Your task to perform on an android device: Go to internet settings Image 0: 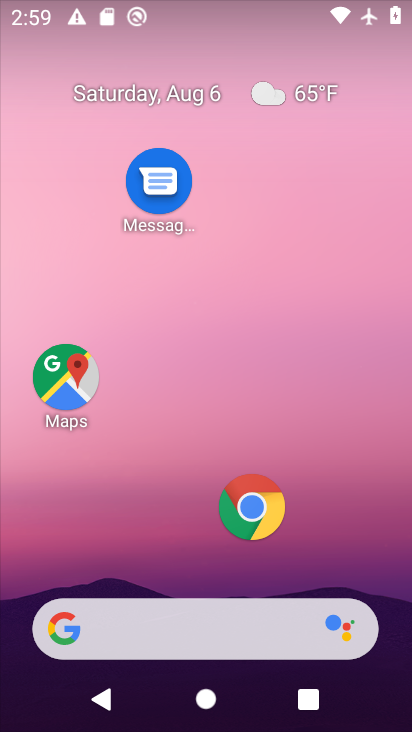
Step 0: drag from (170, 568) to (259, 25)
Your task to perform on an android device: Go to internet settings Image 1: 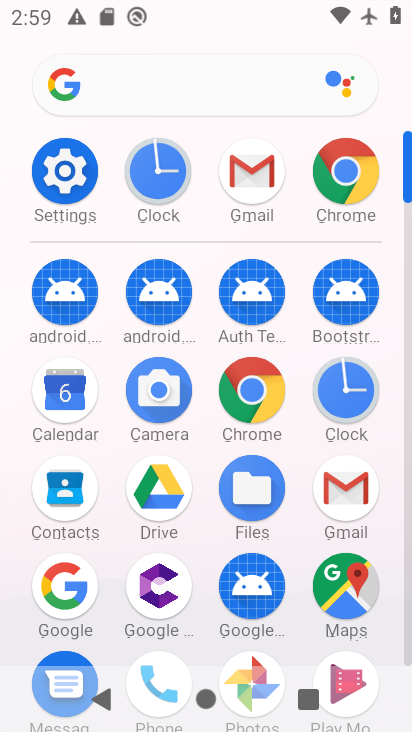
Step 1: click (66, 182)
Your task to perform on an android device: Go to internet settings Image 2: 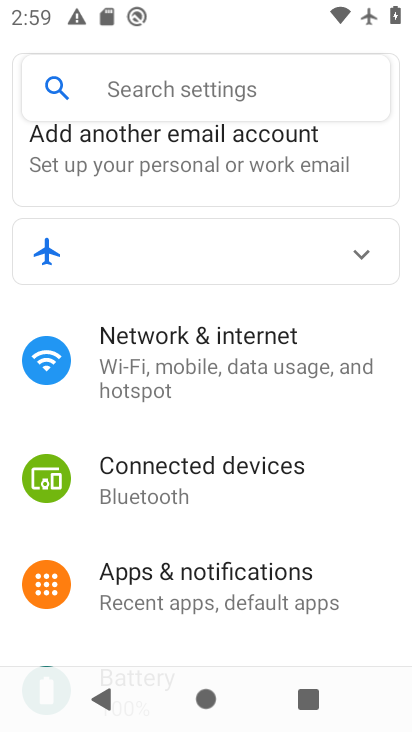
Step 2: click (214, 370)
Your task to perform on an android device: Go to internet settings Image 3: 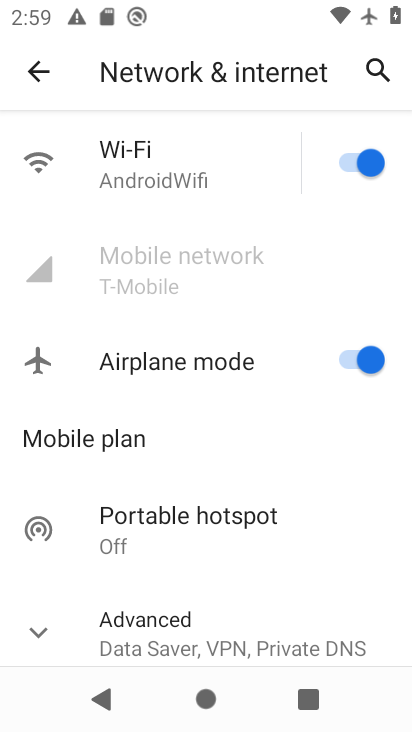
Step 3: task complete